Your task to perform on an android device: change notifications settings Image 0: 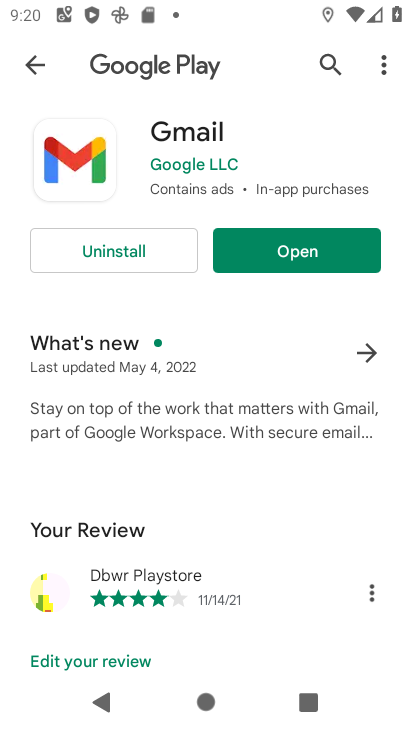
Step 0: press home button
Your task to perform on an android device: change notifications settings Image 1: 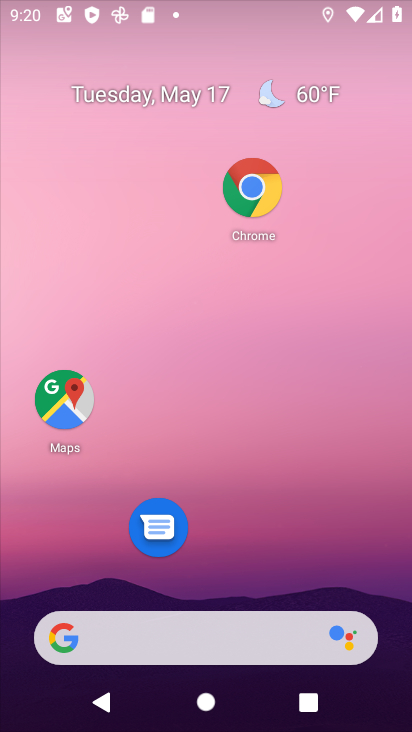
Step 1: drag from (280, 547) to (277, 34)
Your task to perform on an android device: change notifications settings Image 2: 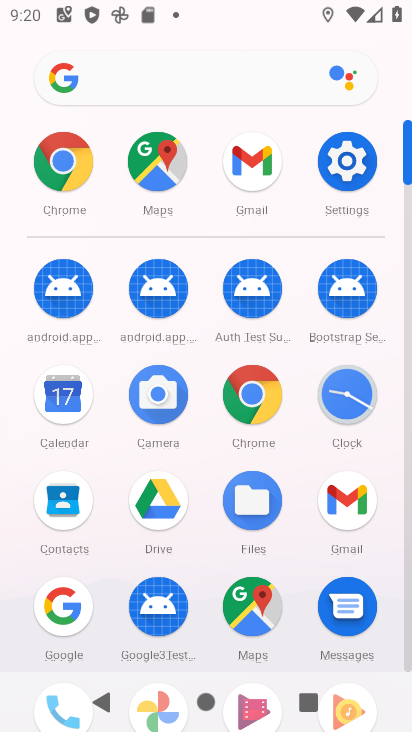
Step 2: click (331, 177)
Your task to perform on an android device: change notifications settings Image 3: 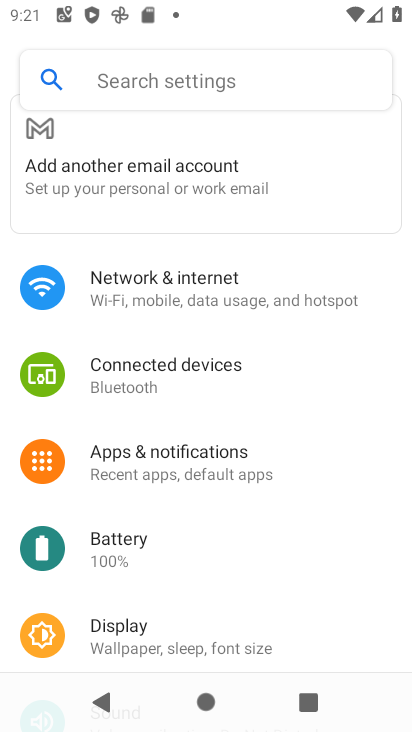
Step 3: click (201, 477)
Your task to perform on an android device: change notifications settings Image 4: 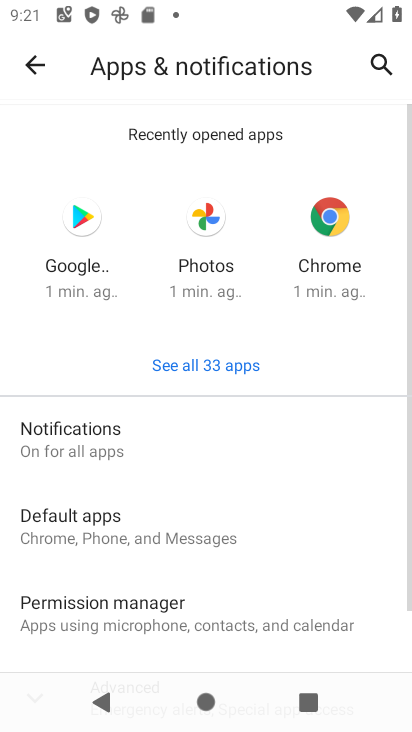
Step 4: click (201, 458)
Your task to perform on an android device: change notifications settings Image 5: 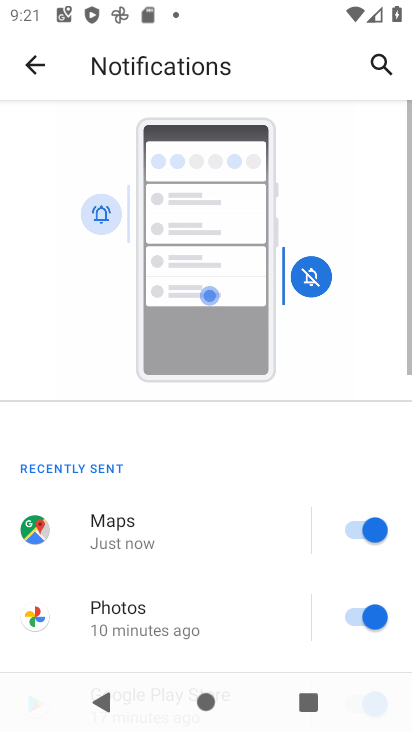
Step 5: drag from (219, 562) to (259, 192)
Your task to perform on an android device: change notifications settings Image 6: 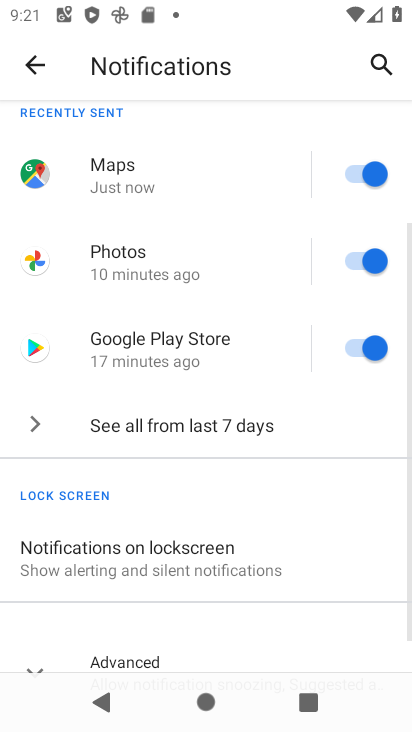
Step 6: drag from (210, 601) to (222, 330)
Your task to perform on an android device: change notifications settings Image 7: 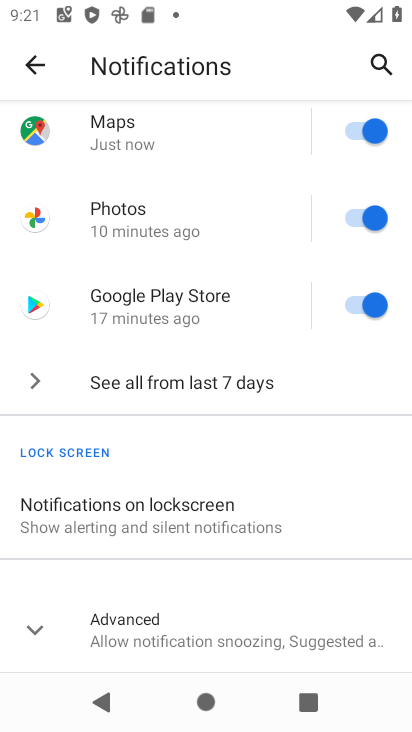
Step 7: click (138, 621)
Your task to perform on an android device: change notifications settings Image 8: 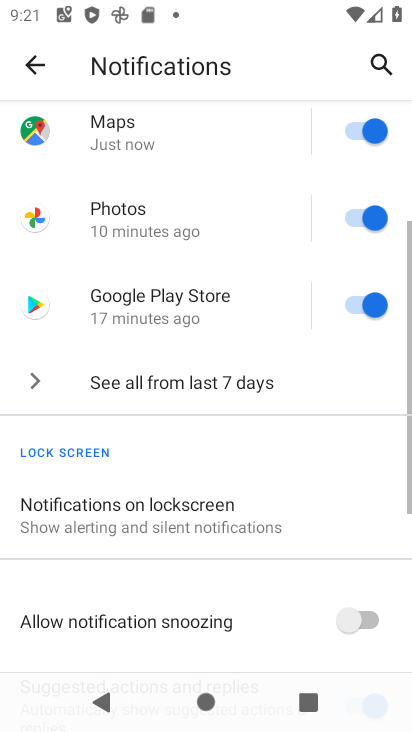
Step 8: task complete